Your task to perform on an android device: Search for Italian restaurants on Maps Image 0: 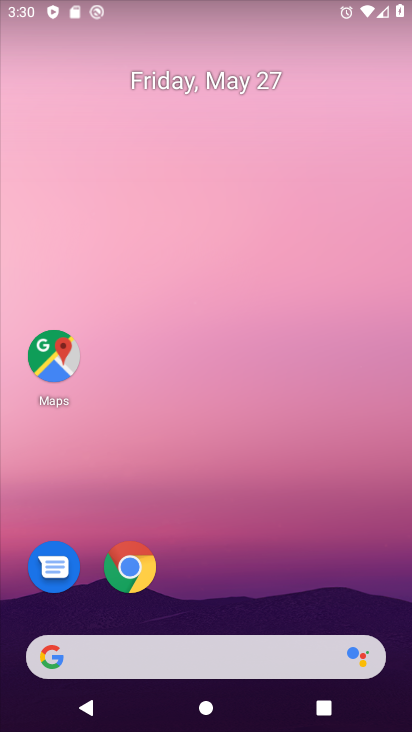
Step 0: click (49, 350)
Your task to perform on an android device: Search for Italian restaurants on Maps Image 1: 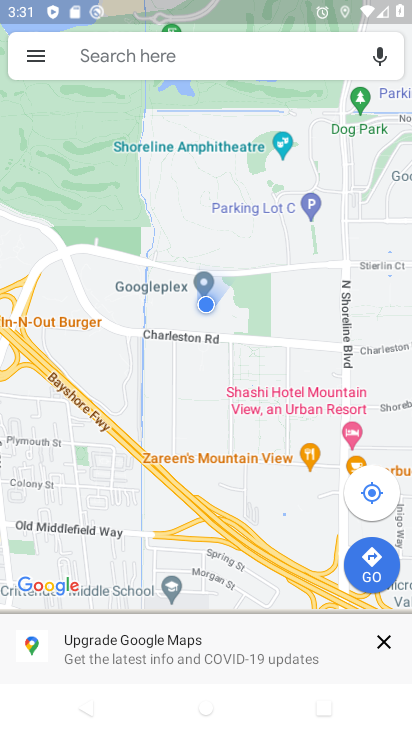
Step 1: click (110, 55)
Your task to perform on an android device: Search for Italian restaurants on Maps Image 2: 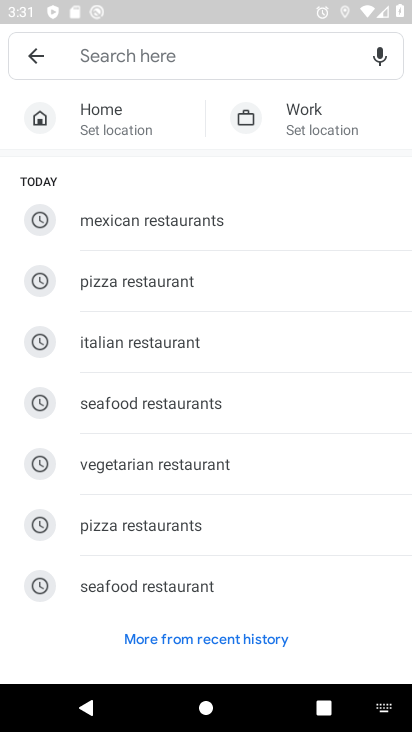
Step 2: type "italian restaurants"
Your task to perform on an android device: Search for Italian restaurants on Maps Image 3: 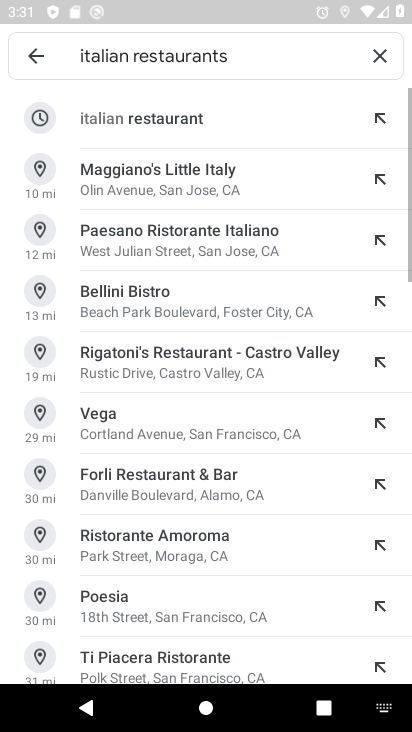
Step 3: click (143, 119)
Your task to perform on an android device: Search for Italian restaurants on Maps Image 4: 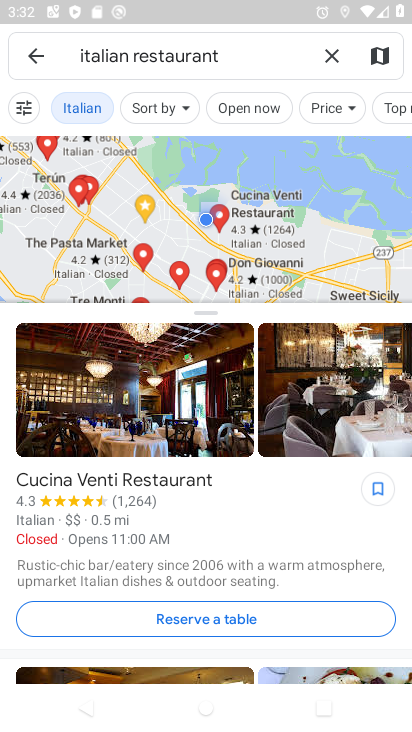
Step 4: task complete